Your task to perform on an android device: turn off data saver in the chrome app Image 0: 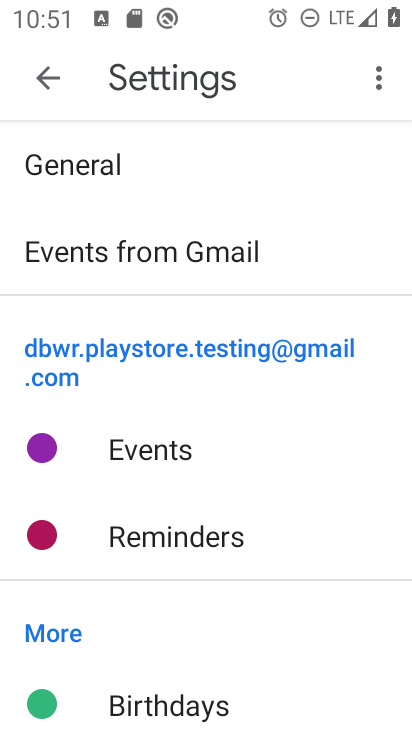
Step 0: press home button
Your task to perform on an android device: turn off data saver in the chrome app Image 1: 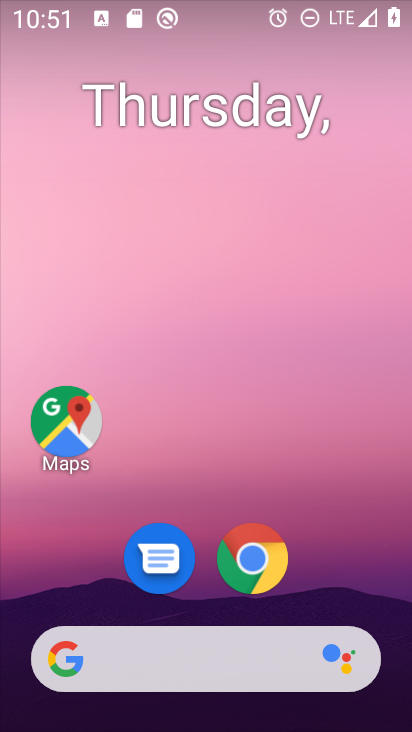
Step 1: click (249, 556)
Your task to perform on an android device: turn off data saver in the chrome app Image 2: 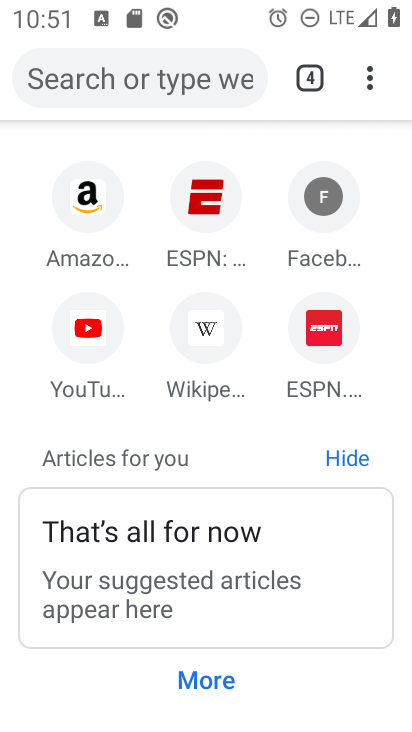
Step 2: click (369, 88)
Your task to perform on an android device: turn off data saver in the chrome app Image 3: 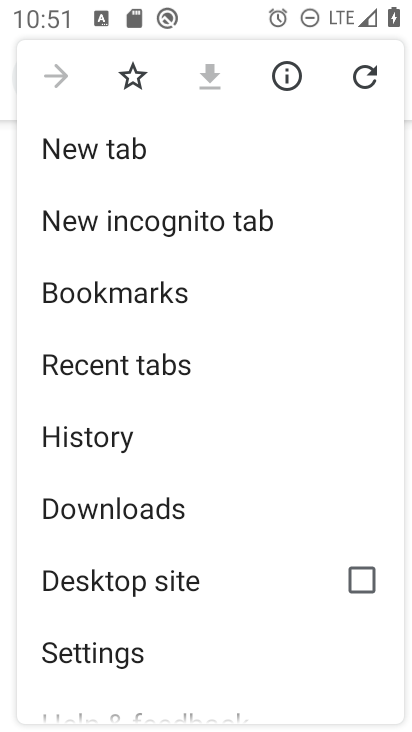
Step 3: click (77, 651)
Your task to perform on an android device: turn off data saver in the chrome app Image 4: 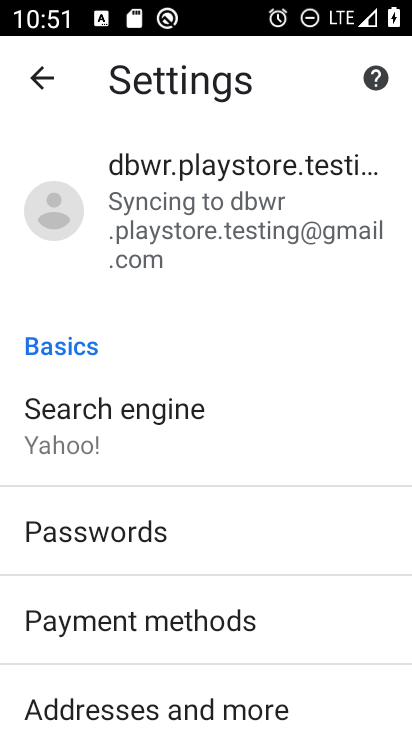
Step 4: drag from (297, 636) to (283, 348)
Your task to perform on an android device: turn off data saver in the chrome app Image 5: 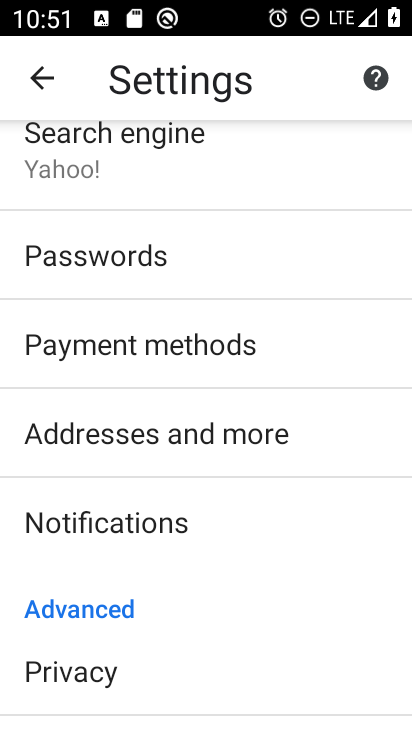
Step 5: drag from (248, 640) to (312, 236)
Your task to perform on an android device: turn off data saver in the chrome app Image 6: 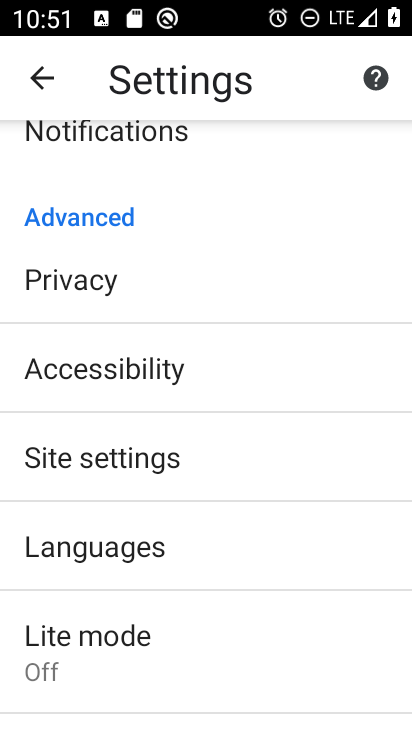
Step 6: click (59, 646)
Your task to perform on an android device: turn off data saver in the chrome app Image 7: 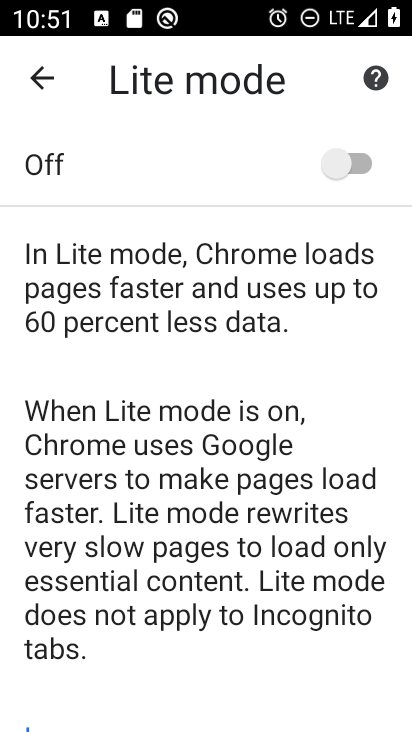
Step 7: task complete